Your task to perform on an android device: What is the recent news? Image 0: 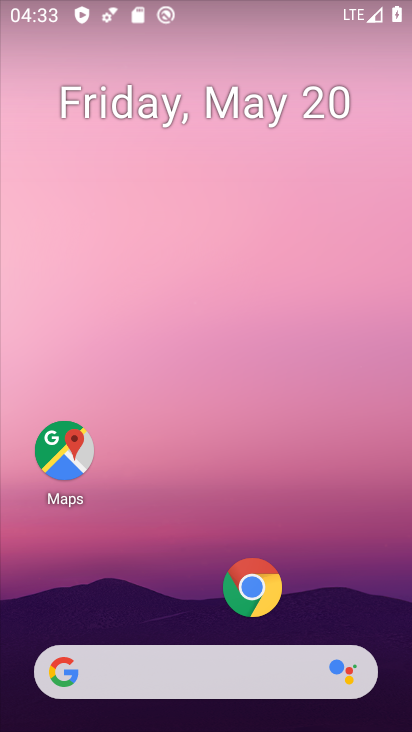
Step 0: click (175, 678)
Your task to perform on an android device: What is the recent news? Image 1: 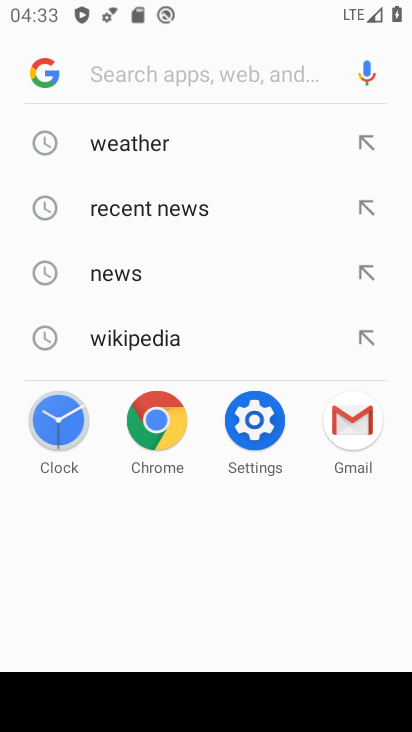
Step 1: click (140, 211)
Your task to perform on an android device: What is the recent news? Image 2: 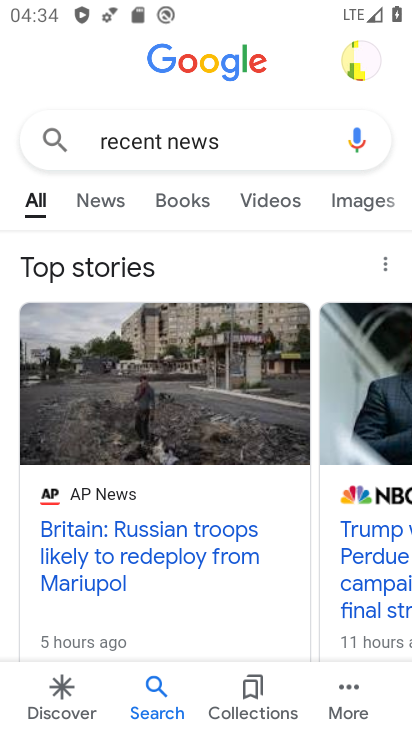
Step 2: click (112, 202)
Your task to perform on an android device: What is the recent news? Image 3: 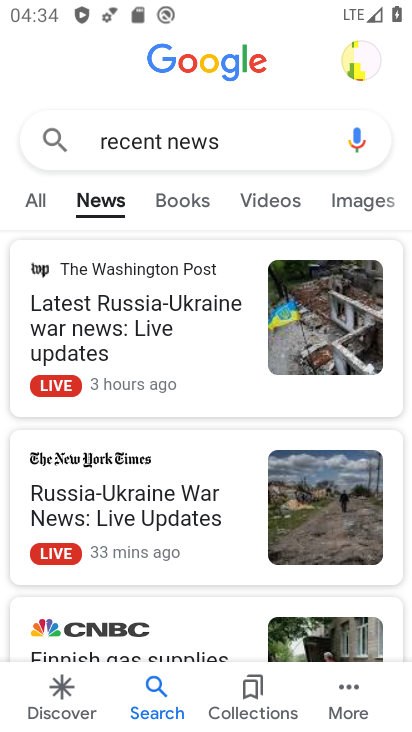
Step 3: task complete